Your task to perform on an android device: see tabs open on other devices in the chrome app Image 0: 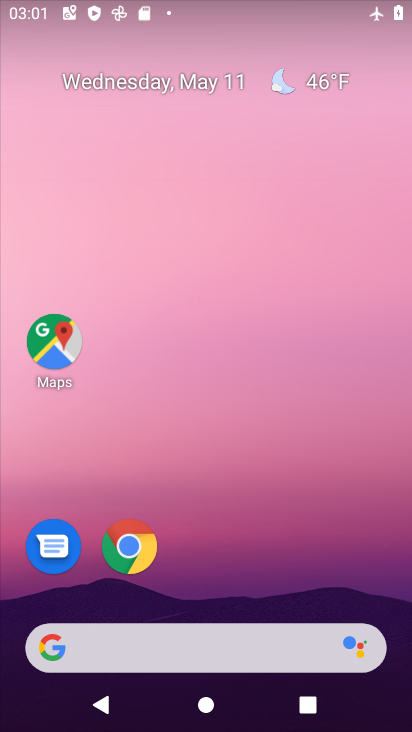
Step 0: drag from (203, 400) to (241, 169)
Your task to perform on an android device: see tabs open on other devices in the chrome app Image 1: 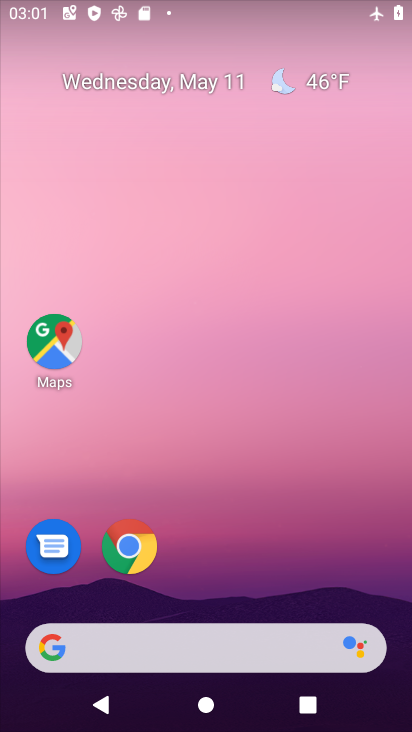
Step 1: drag from (196, 606) to (212, 162)
Your task to perform on an android device: see tabs open on other devices in the chrome app Image 2: 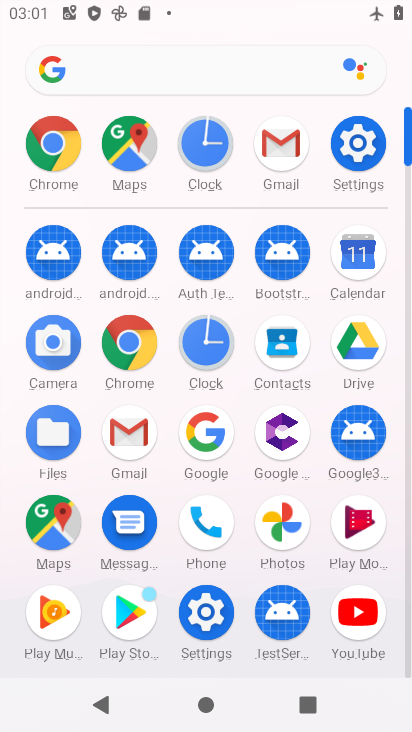
Step 2: click (131, 344)
Your task to perform on an android device: see tabs open on other devices in the chrome app Image 3: 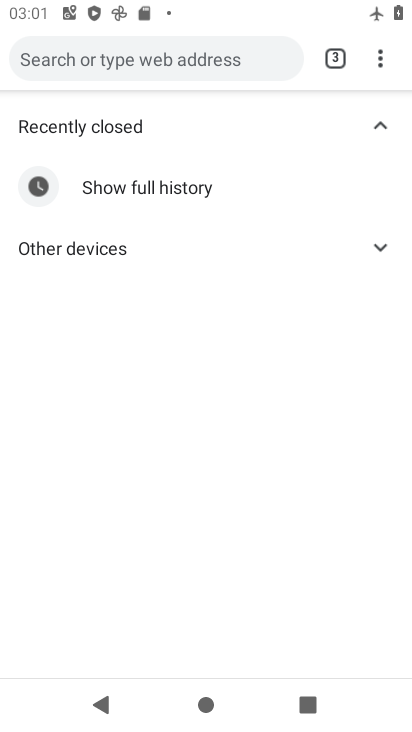
Step 3: task complete